Your task to perform on an android device: Open my contact list Image 0: 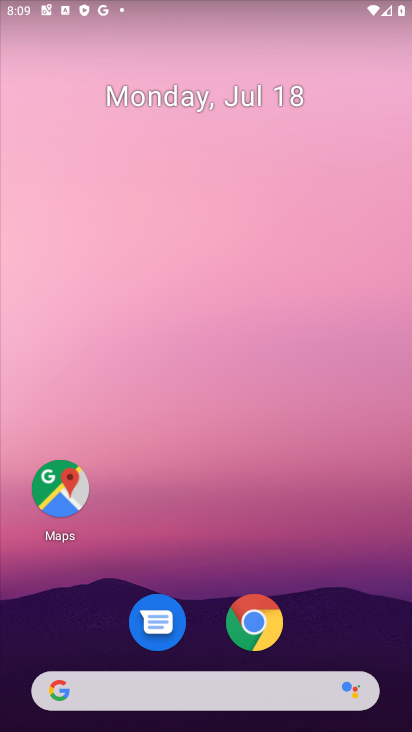
Step 0: drag from (230, 688) to (291, 11)
Your task to perform on an android device: Open my contact list Image 1: 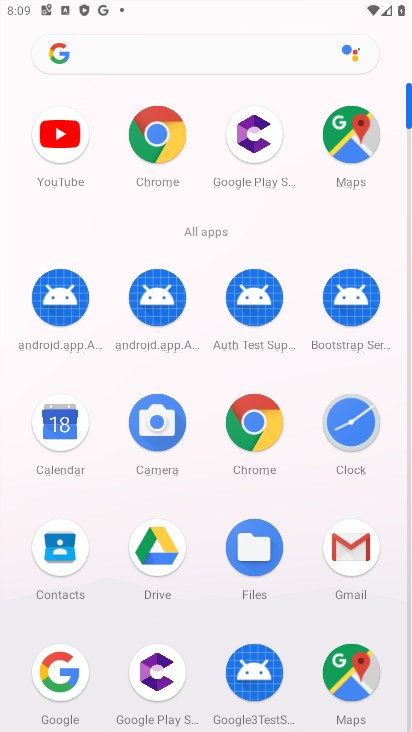
Step 1: click (67, 551)
Your task to perform on an android device: Open my contact list Image 2: 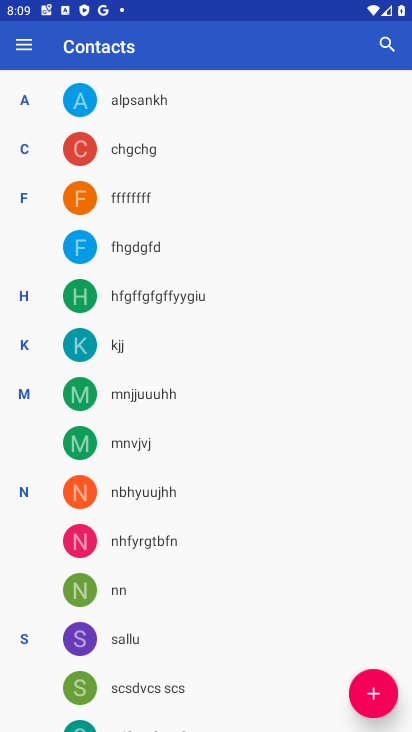
Step 2: task complete